Your task to perform on an android device: turn off javascript in the chrome app Image 0: 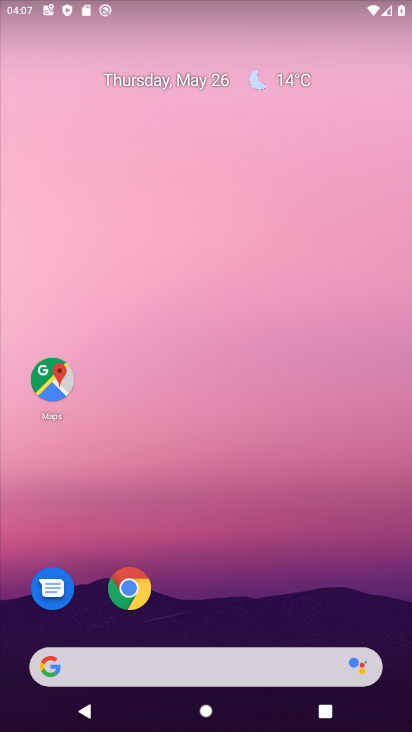
Step 0: click (143, 579)
Your task to perform on an android device: turn off javascript in the chrome app Image 1: 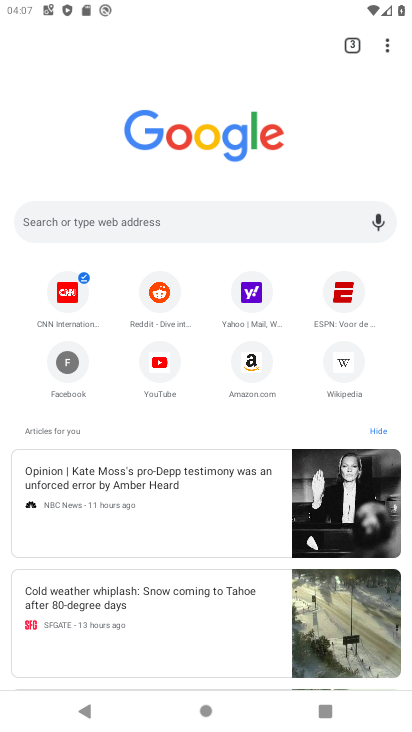
Step 1: click (391, 56)
Your task to perform on an android device: turn off javascript in the chrome app Image 2: 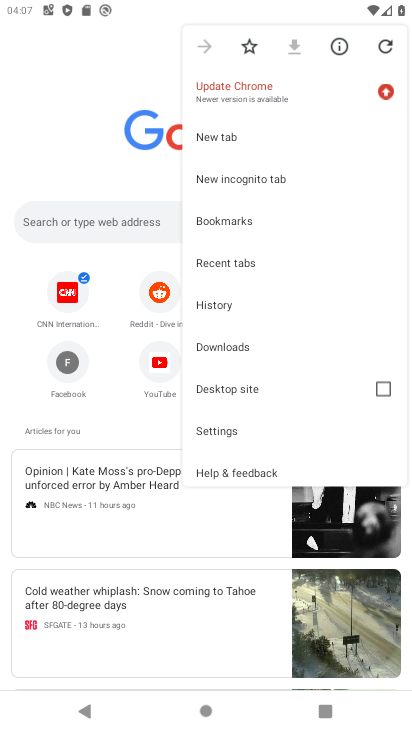
Step 2: click (268, 431)
Your task to perform on an android device: turn off javascript in the chrome app Image 3: 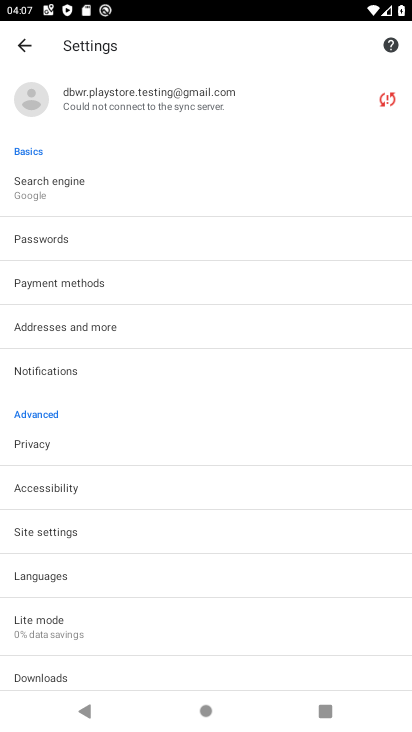
Step 3: click (155, 532)
Your task to perform on an android device: turn off javascript in the chrome app Image 4: 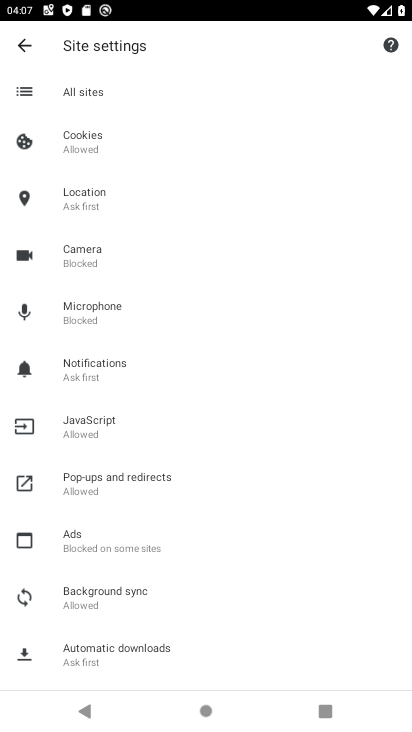
Step 4: click (132, 435)
Your task to perform on an android device: turn off javascript in the chrome app Image 5: 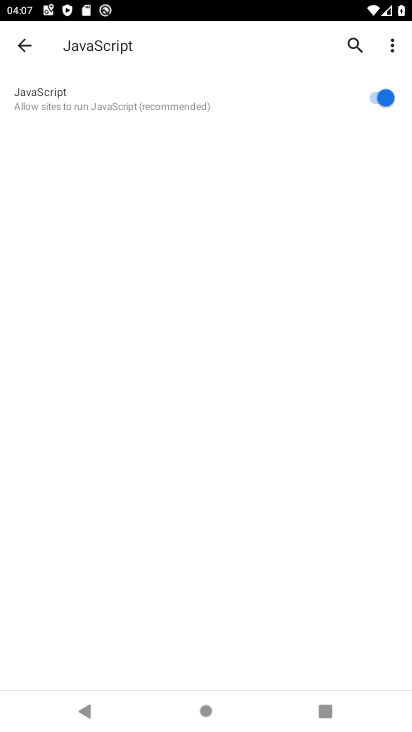
Step 5: click (365, 119)
Your task to perform on an android device: turn off javascript in the chrome app Image 6: 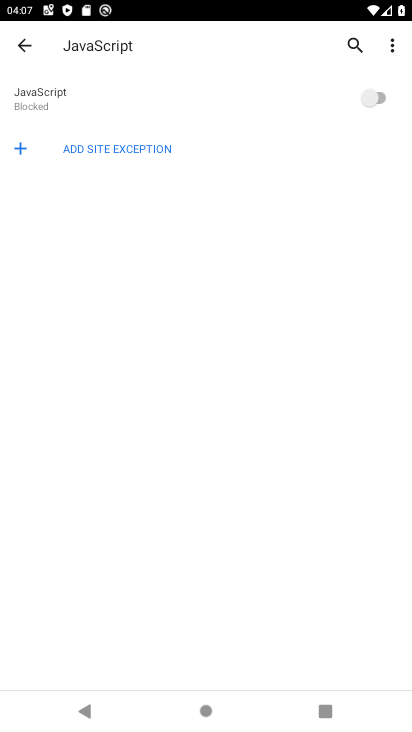
Step 6: task complete